Your task to perform on an android device: turn off airplane mode Image 0: 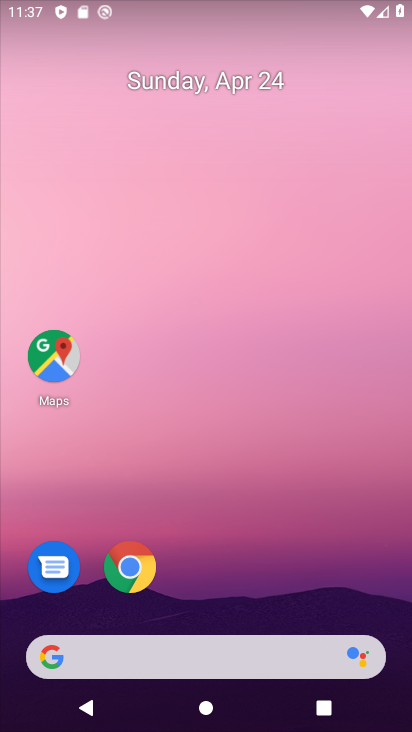
Step 0: drag from (373, 550) to (342, 216)
Your task to perform on an android device: turn off airplane mode Image 1: 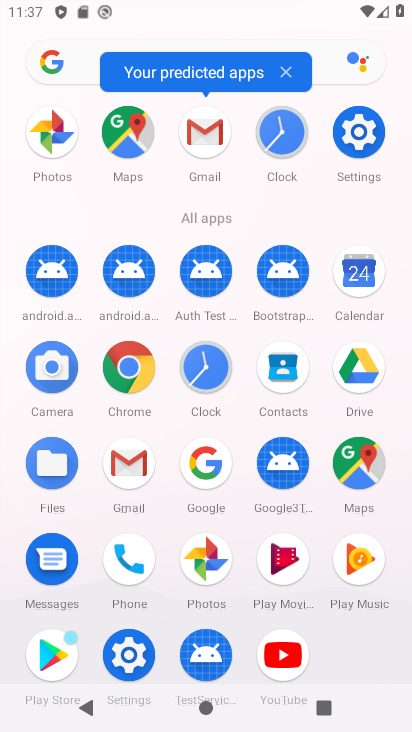
Step 1: click (364, 131)
Your task to perform on an android device: turn off airplane mode Image 2: 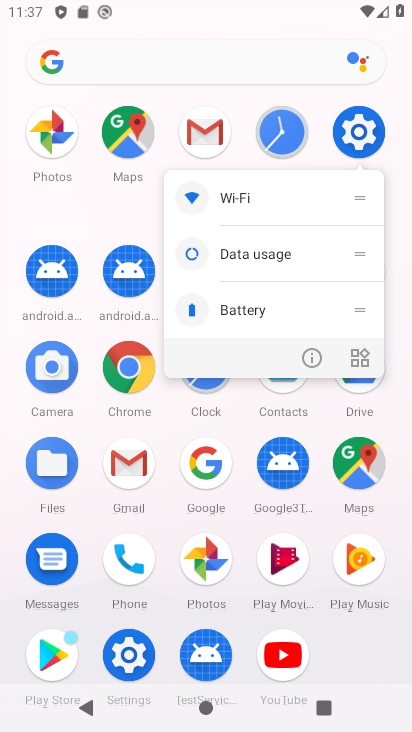
Step 2: click (355, 128)
Your task to perform on an android device: turn off airplane mode Image 3: 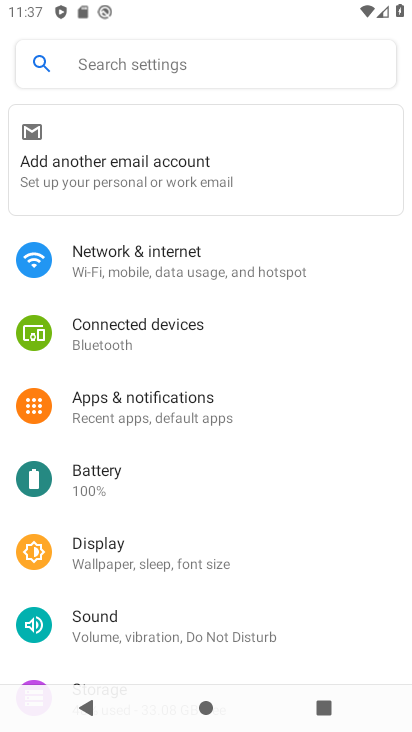
Step 3: click (327, 269)
Your task to perform on an android device: turn off airplane mode Image 4: 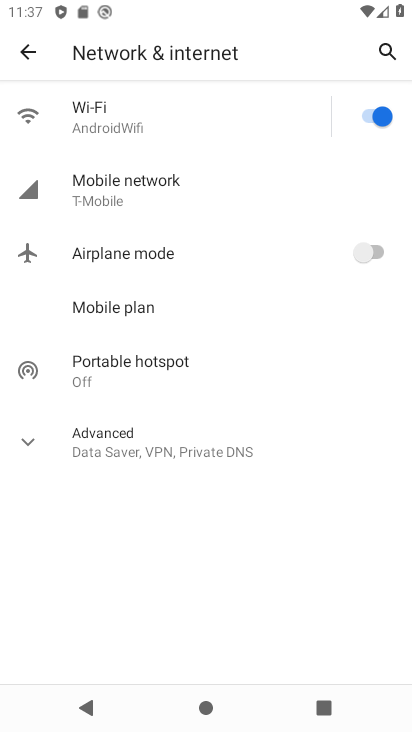
Step 4: task complete